Your task to perform on an android device: Clear all items from cart on target.com. Add "panasonic triple a" to the cart on target.com Image 0: 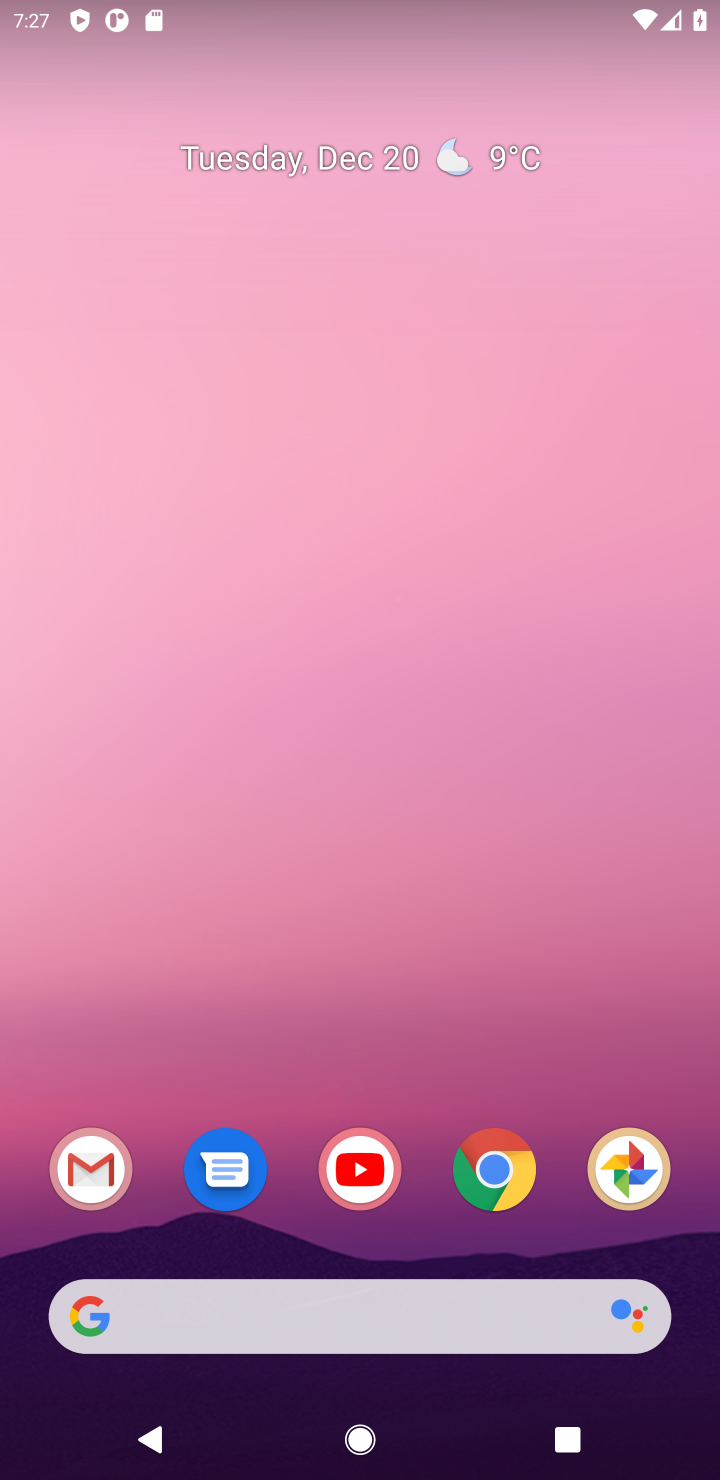
Step 0: click (491, 1186)
Your task to perform on an android device: Clear all items from cart on target.com. Add "panasonic triple a" to the cart on target.com Image 1: 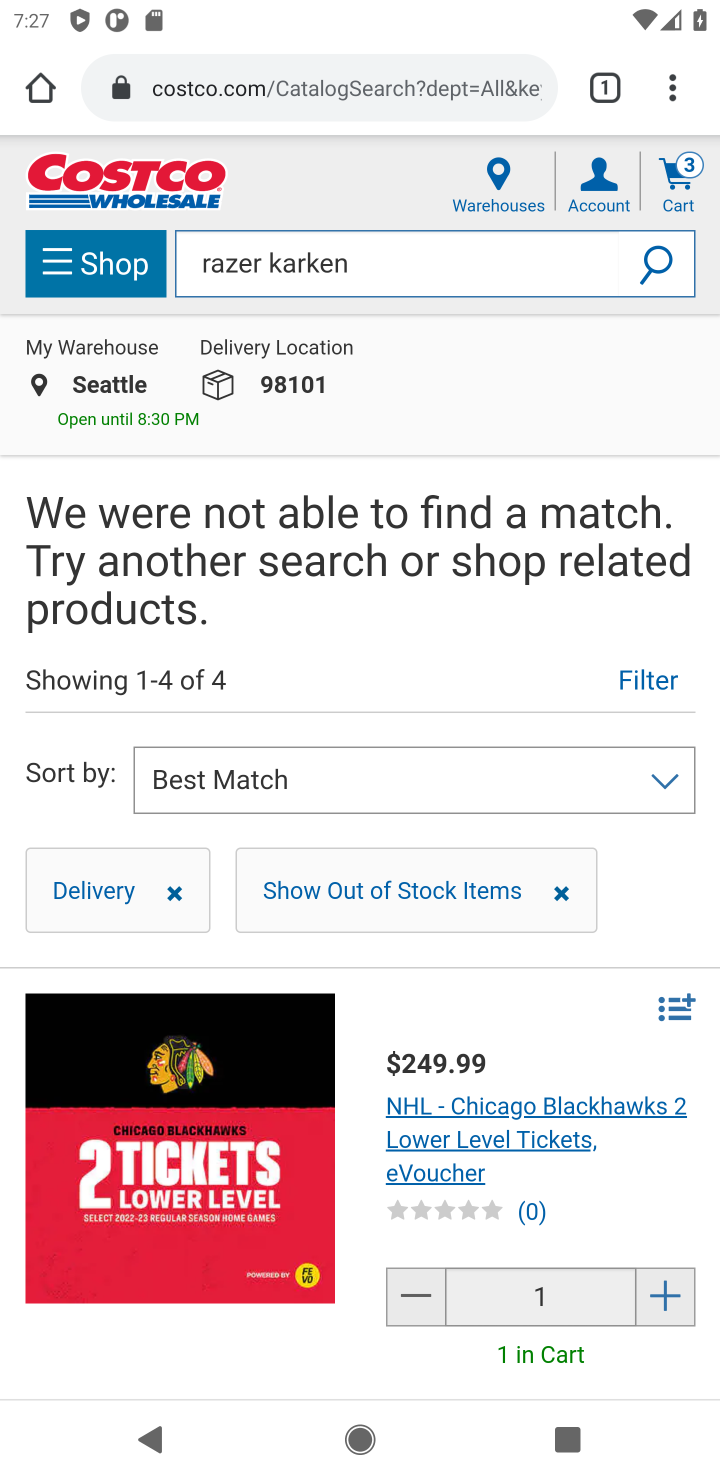
Step 1: click (310, 92)
Your task to perform on an android device: Clear all items from cart on target.com. Add "panasonic triple a" to the cart on target.com Image 2: 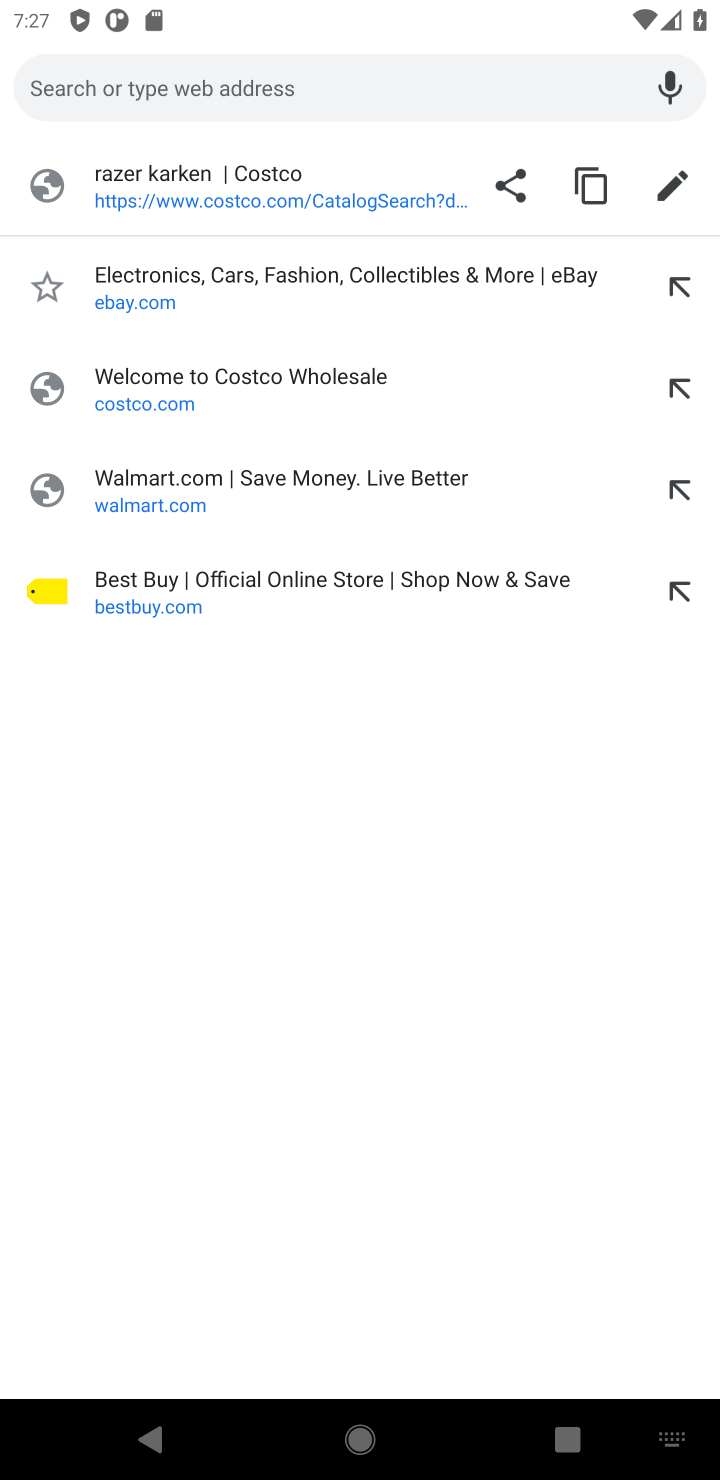
Step 2: type "target"
Your task to perform on an android device: Clear all items from cart on target.com. Add "panasonic triple a" to the cart on target.com Image 3: 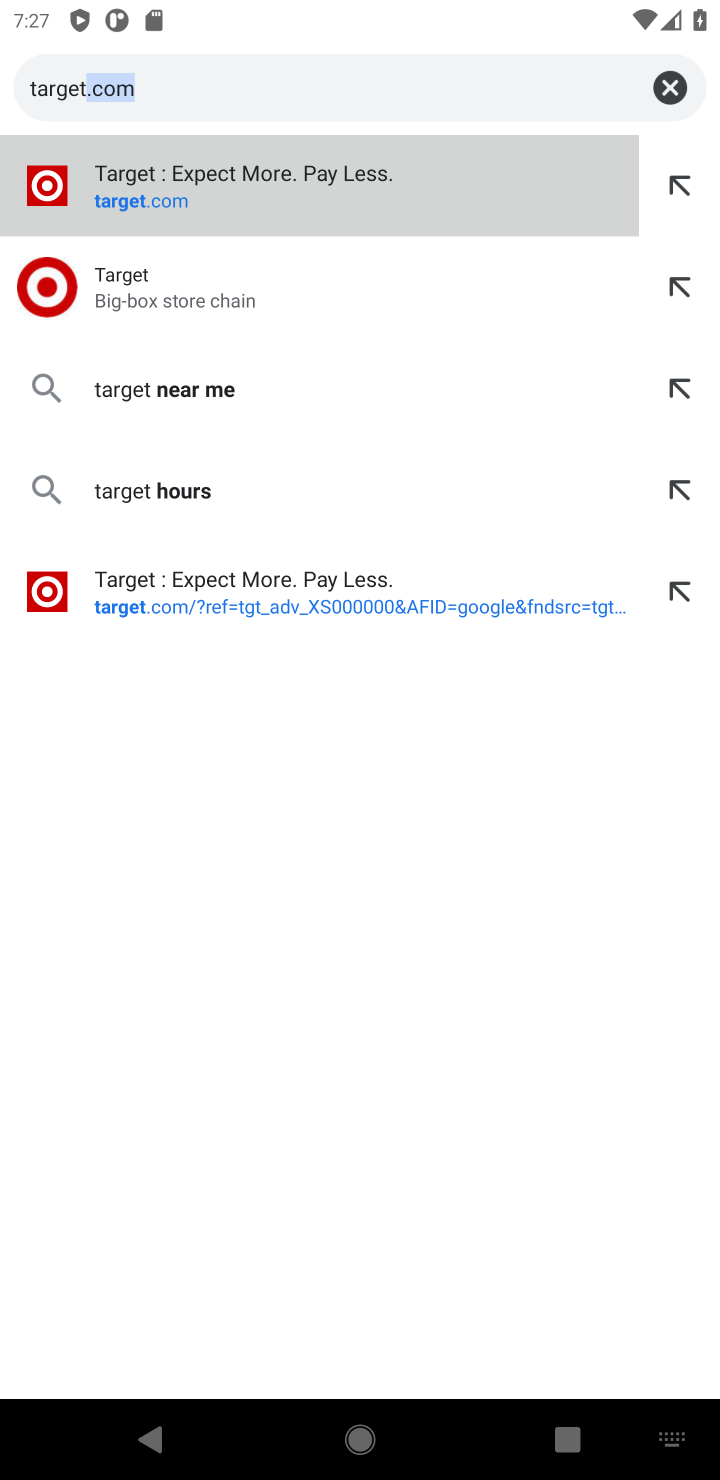
Step 3: click (220, 212)
Your task to perform on an android device: Clear all items from cart on target.com. Add "panasonic triple a" to the cart on target.com Image 4: 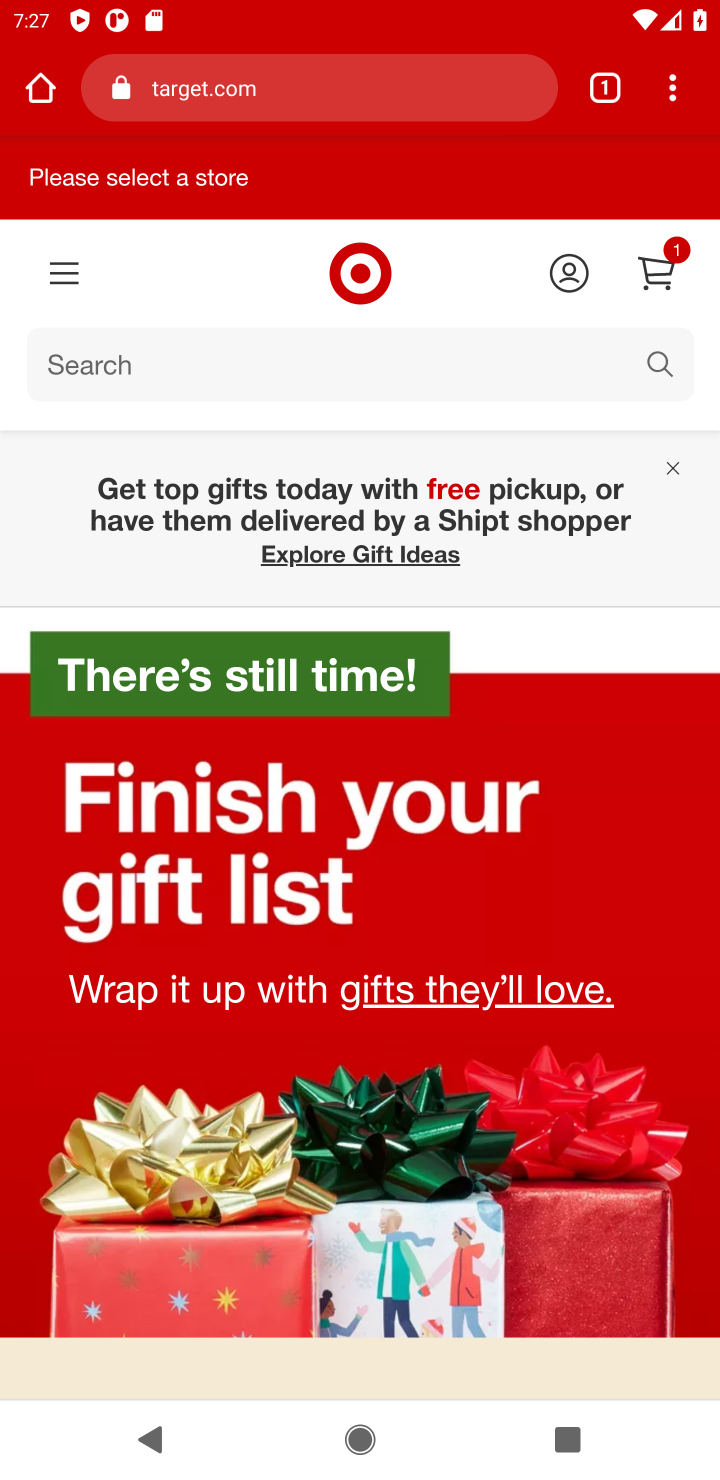
Step 4: click (322, 377)
Your task to perform on an android device: Clear all items from cart on target.com. Add "panasonic triple a" to the cart on target.com Image 5: 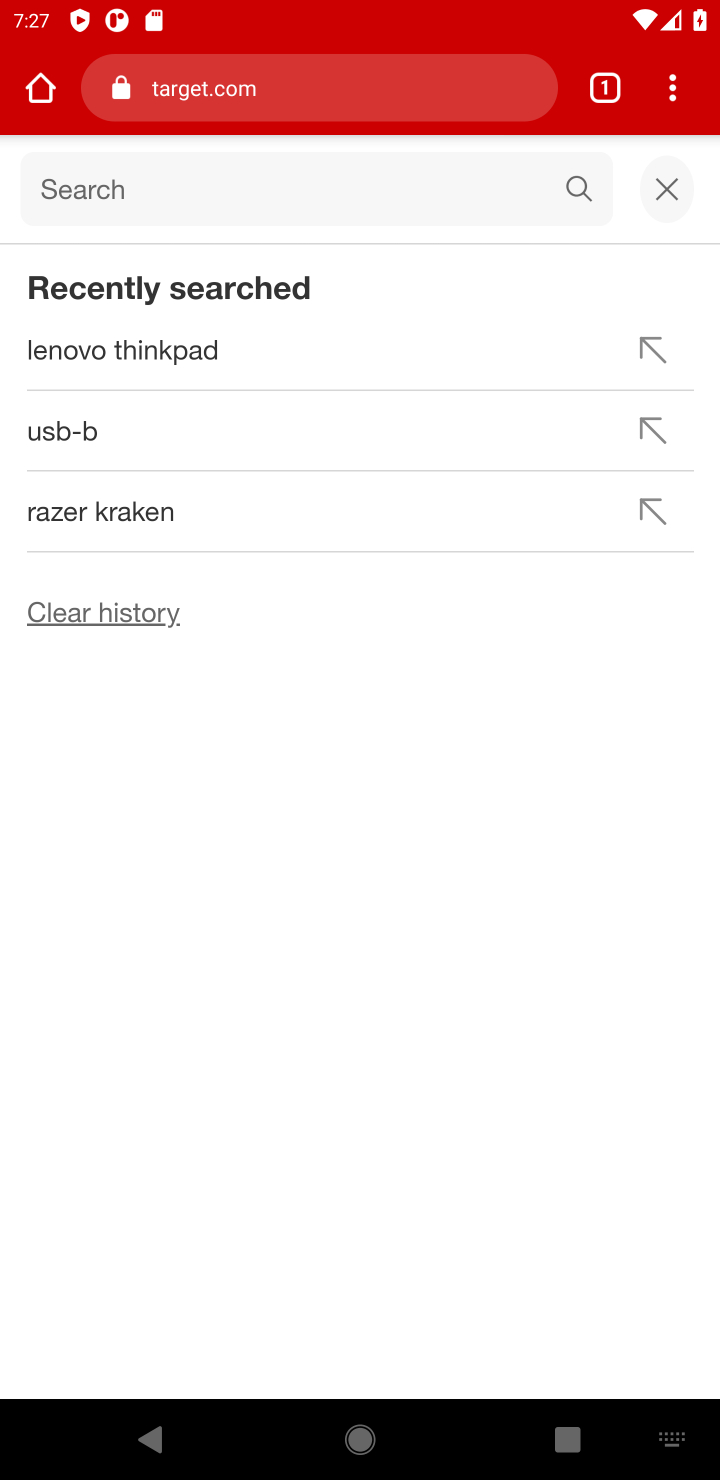
Step 5: type "panasonic triple a"
Your task to perform on an android device: Clear all items from cart on target.com. Add "panasonic triple a" to the cart on target.com Image 6: 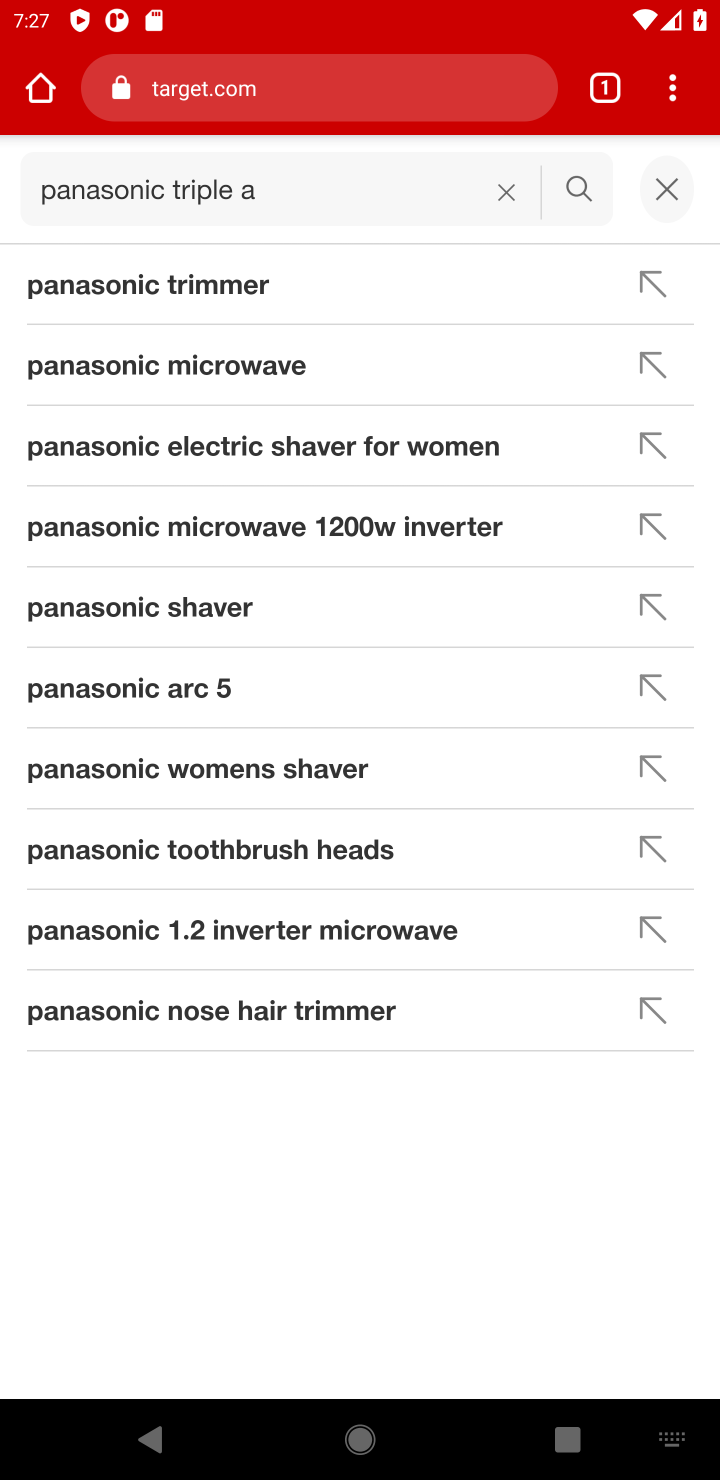
Step 6: click (592, 195)
Your task to perform on an android device: Clear all items from cart on target.com. Add "panasonic triple a" to the cart on target.com Image 7: 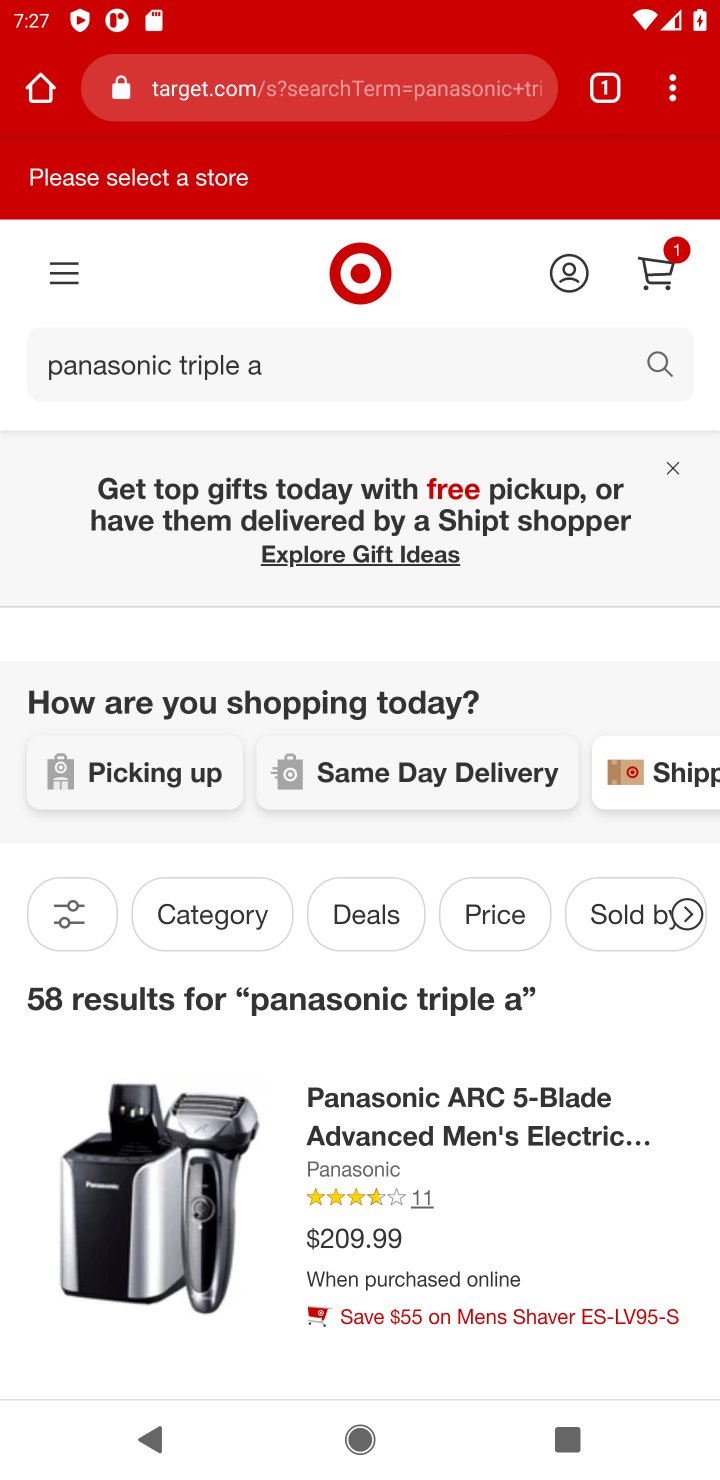
Step 7: click (380, 1269)
Your task to perform on an android device: Clear all items from cart on target.com. Add "panasonic triple a" to the cart on target.com Image 8: 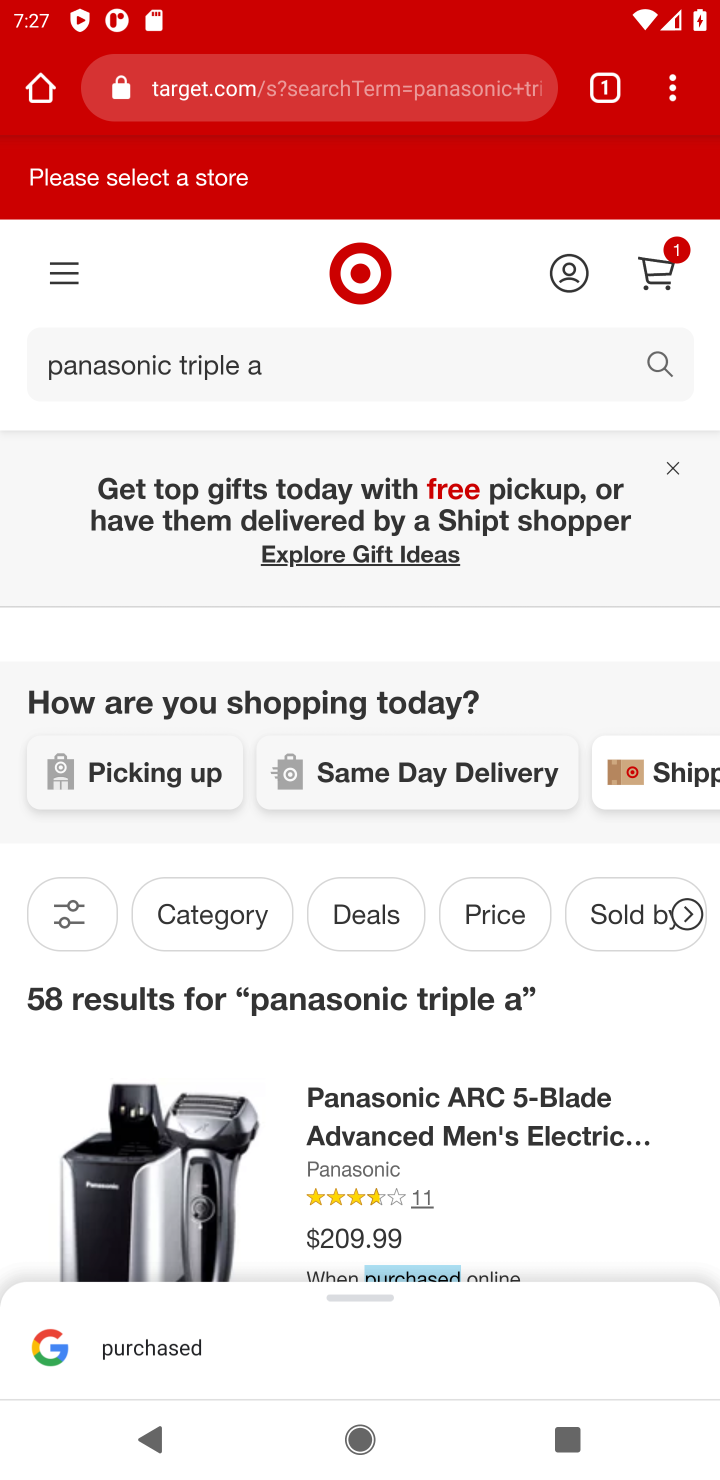
Step 8: click (369, 1136)
Your task to perform on an android device: Clear all items from cart on target.com. Add "panasonic triple a" to the cart on target.com Image 9: 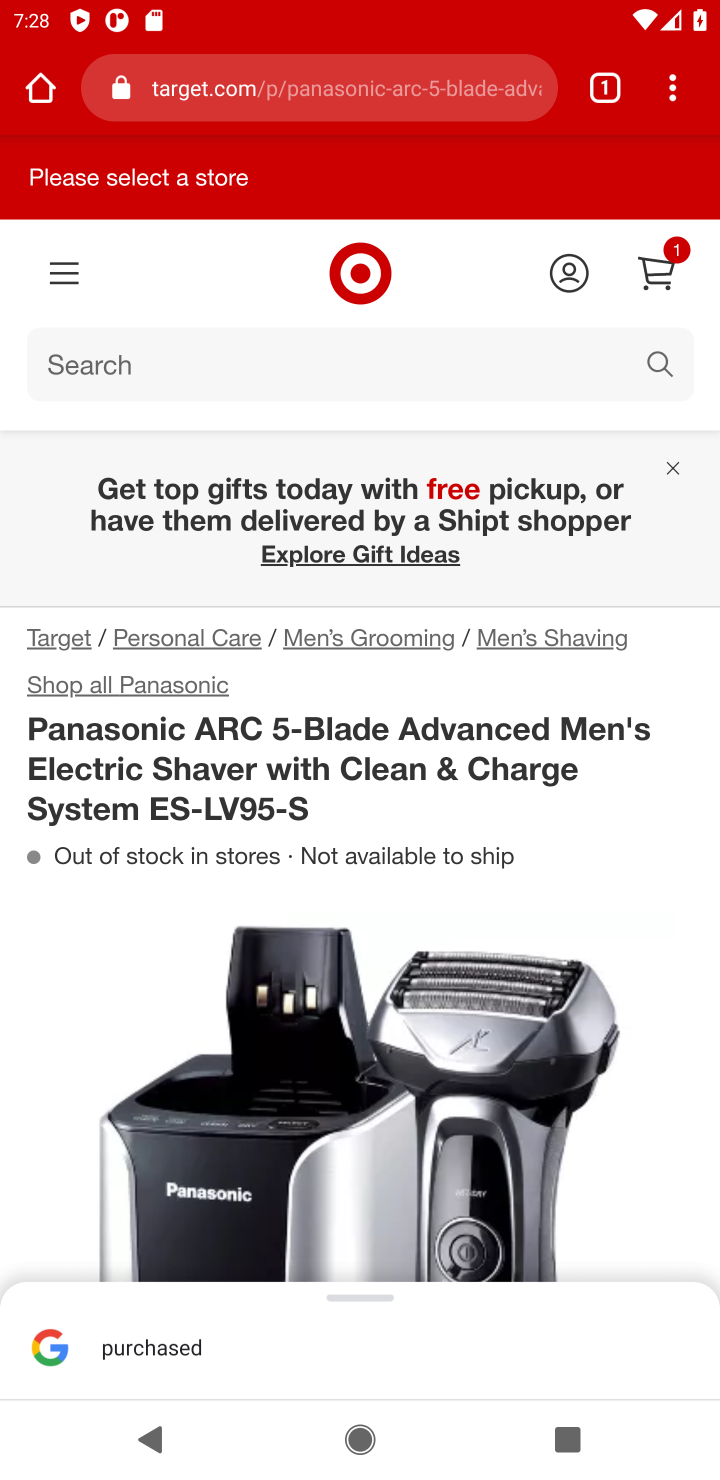
Step 9: drag from (684, 1191) to (533, 726)
Your task to perform on an android device: Clear all items from cart on target.com. Add "panasonic triple a" to the cart on target.com Image 10: 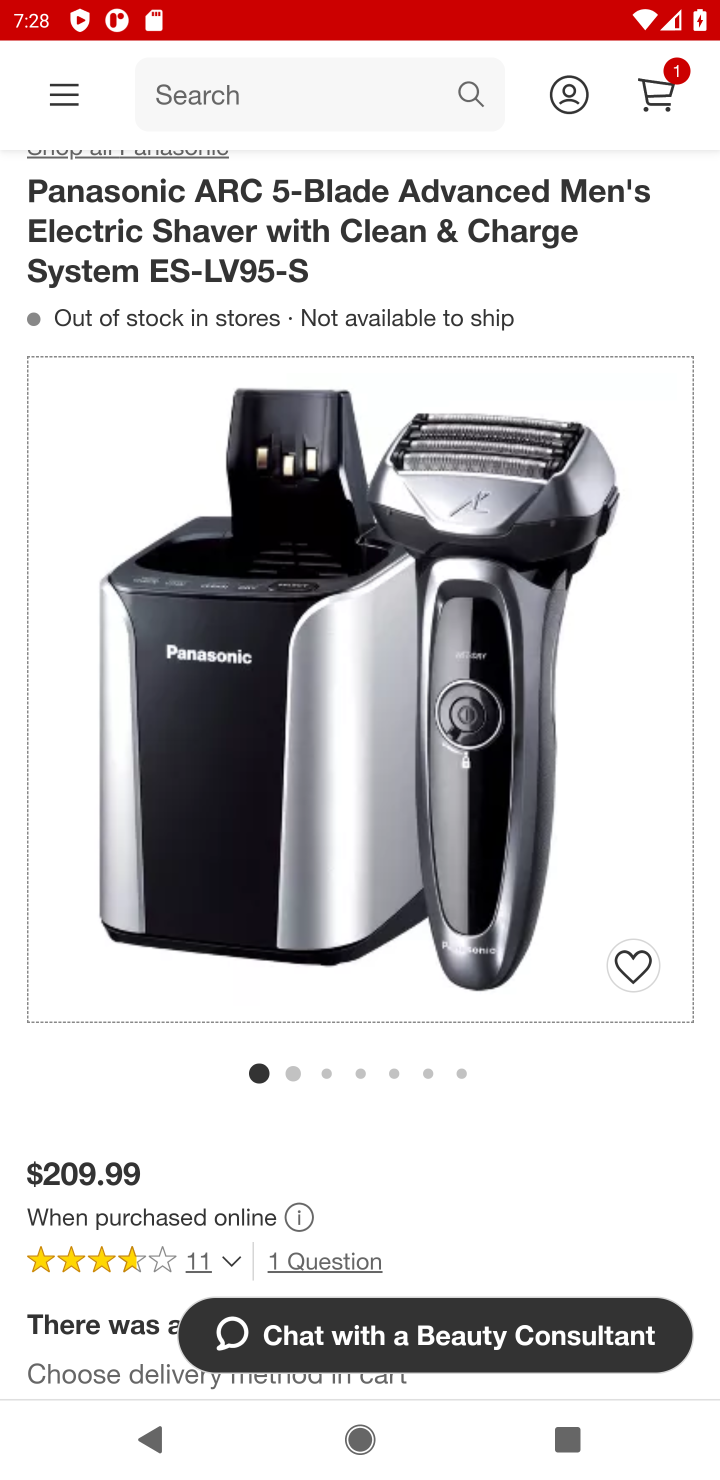
Step 10: drag from (486, 1188) to (440, 407)
Your task to perform on an android device: Clear all items from cart on target.com. Add "panasonic triple a" to the cart on target.com Image 11: 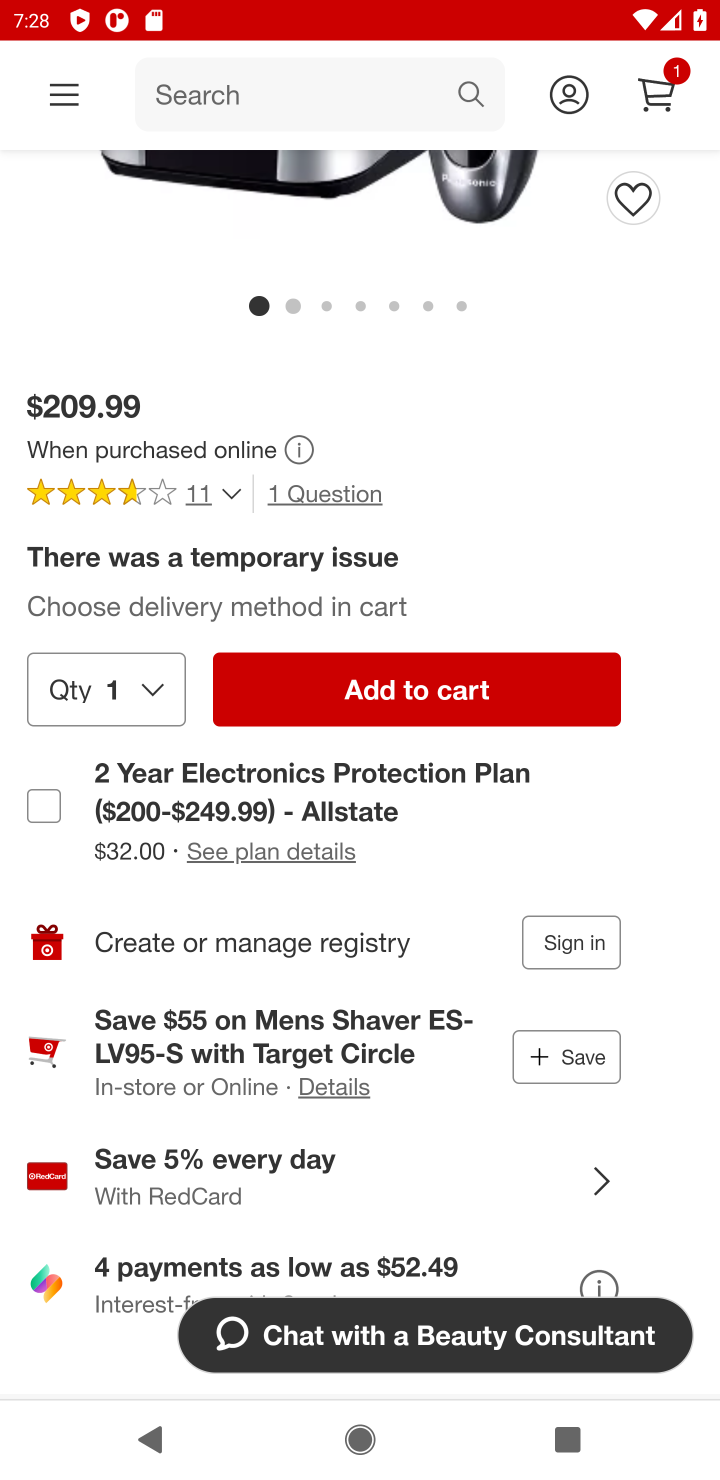
Step 11: click (498, 708)
Your task to perform on an android device: Clear all items from cart on target.com. Add "panasonic triple a" to the cart on target.com Image 12: 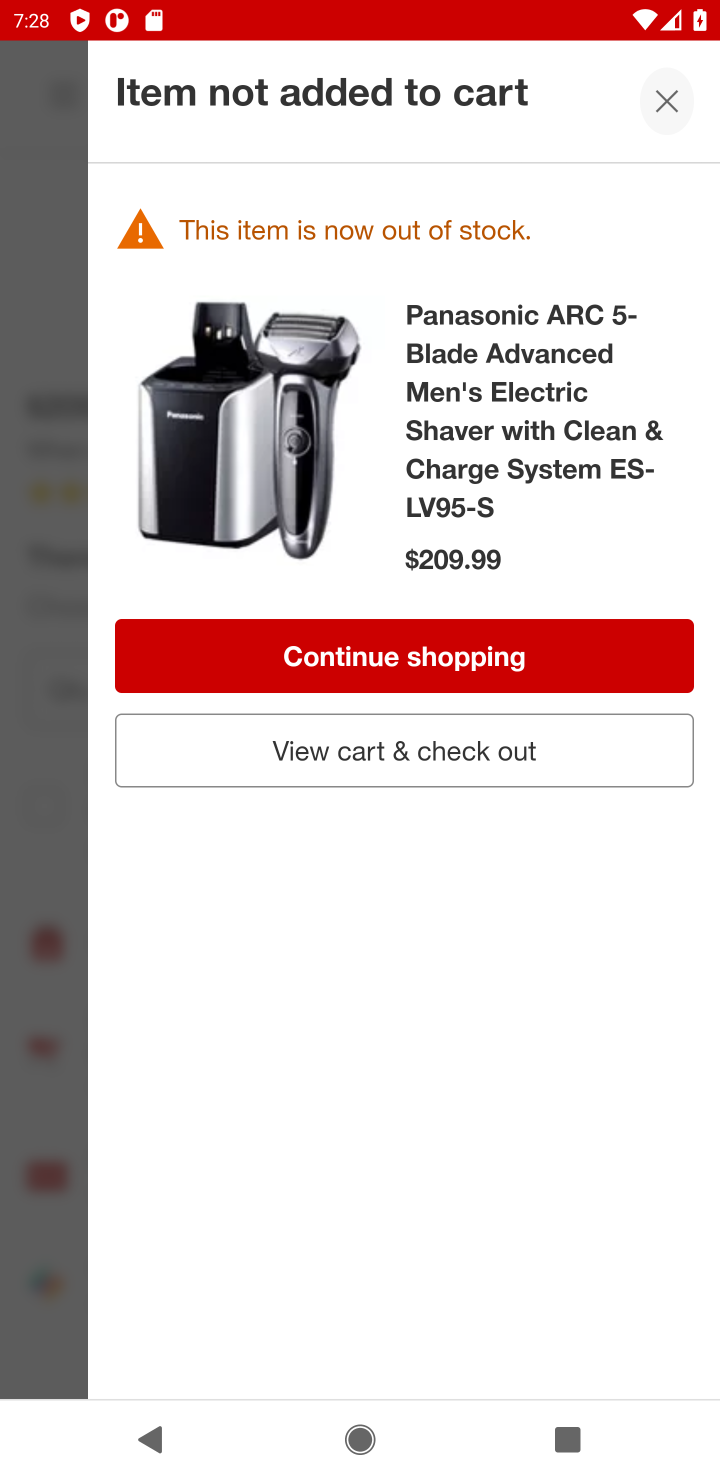
Step 12: click (530, 662)
Your task to perform on an android device: Clear all items from cart on target.com. Add "panasonic triple a" to the cart on target.com Image 13: 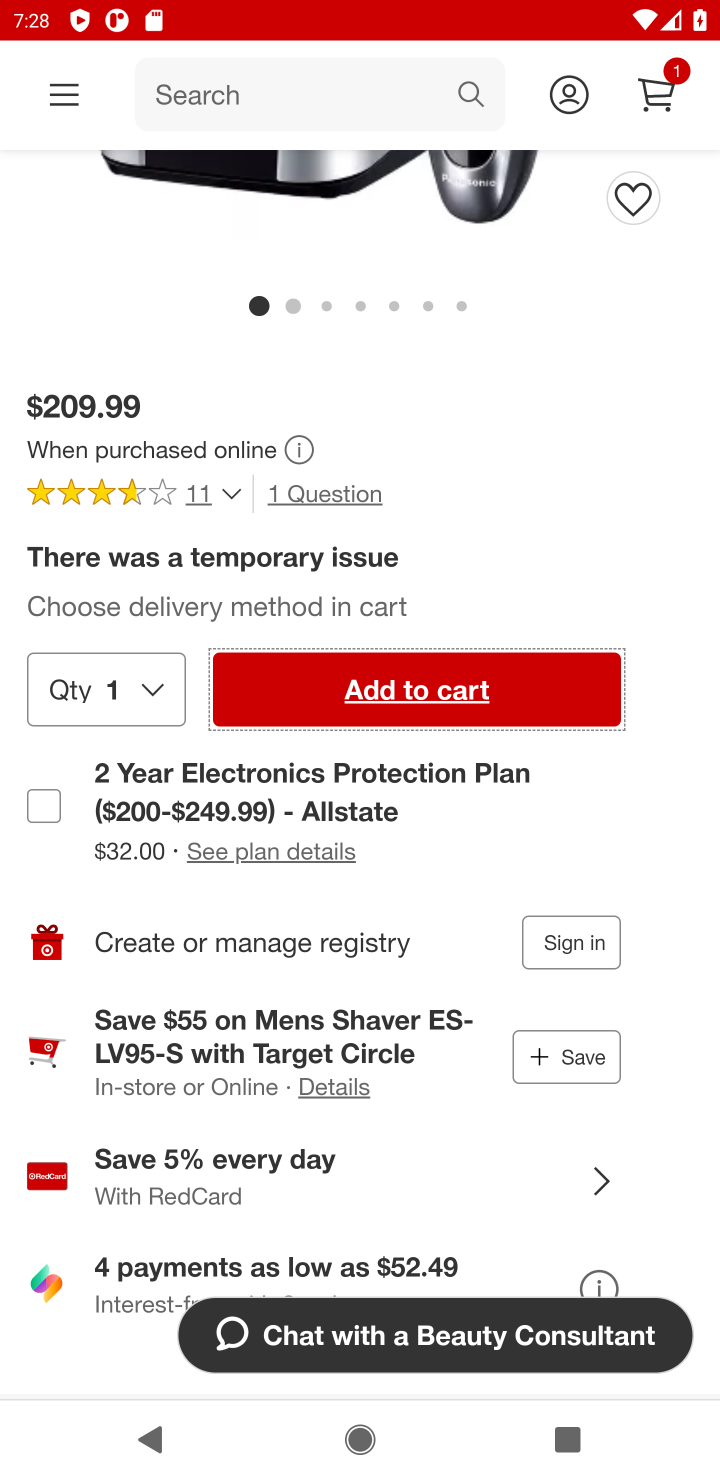
Step 13: click (440, 697)
Your task to perform on an android device: Clear all items from cart on target.com. Add "panasonic triple a" to the cart on target.com Image 14: 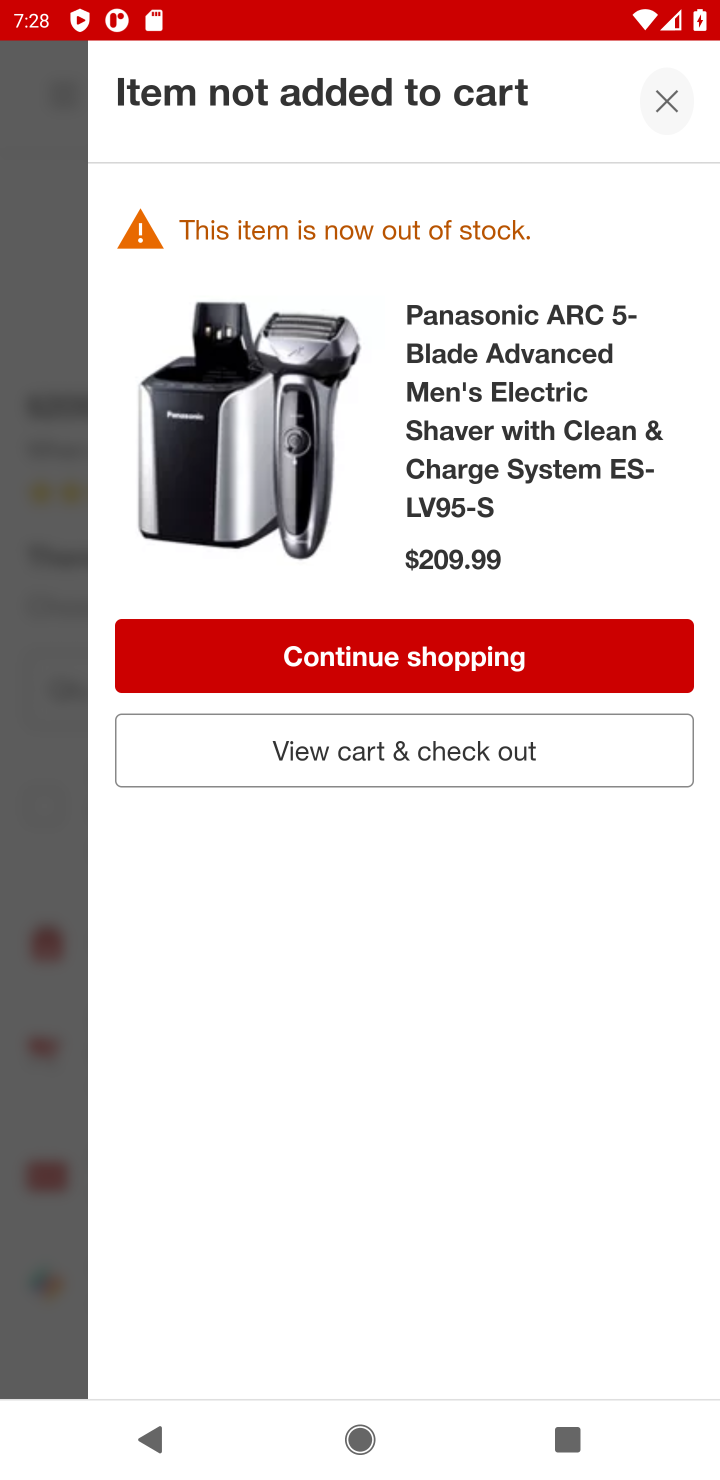
Step 14: task complete